Your task to perform on an android device: Open calendar and show me the third week of next month Image 0: 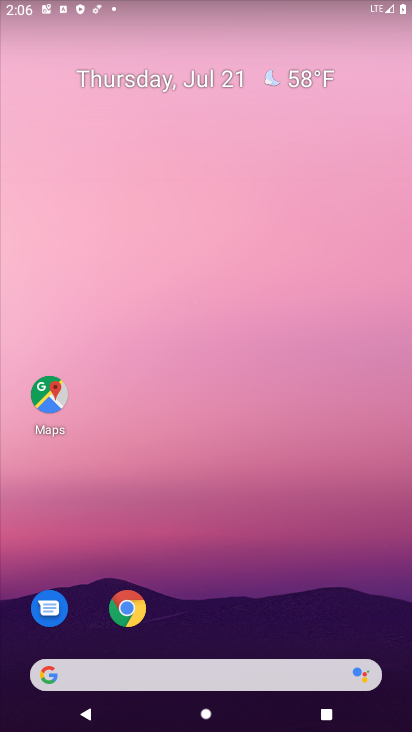
Step 0: drag from (393, 661) to (211, 26)
Your task to perform on an android device: Open calendar and show me the third week of next month Image 1: 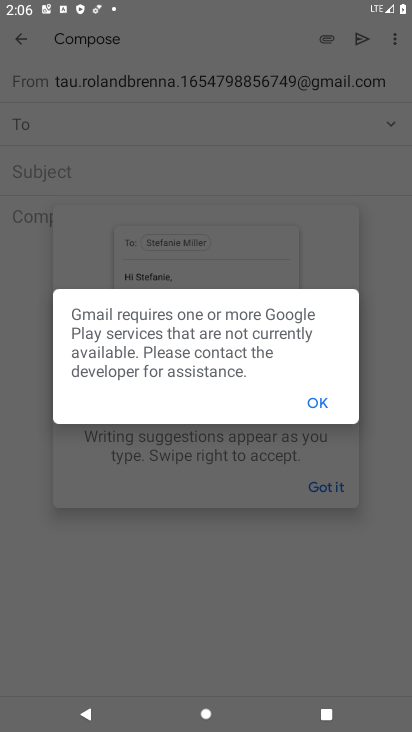
Step 1: press home button
Your task to perform on an android device: Open calendar and show me the third week of next month Image 2: 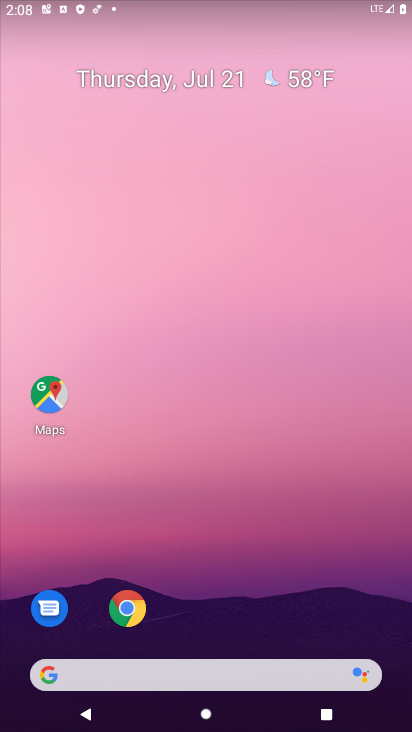
Step 2: drag from (298, 621) to (233, 69)
Your task to perform on an android device: Open calendar and show me the third week of next month Image 3: 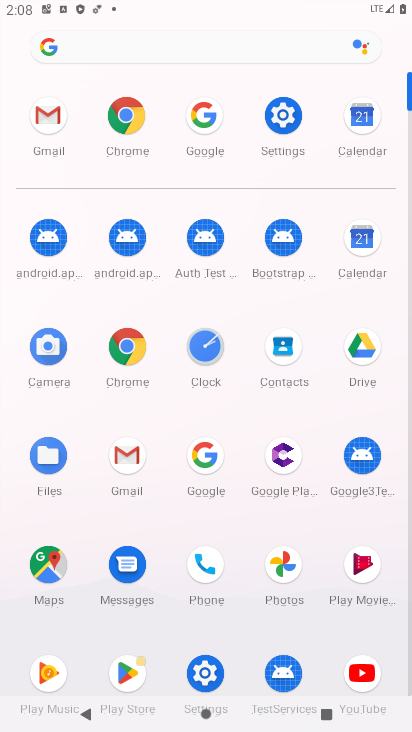
Step 3: click (373, 242)
Your task to perform on an android device: Open calendar and show me the third week of next month Image 4: 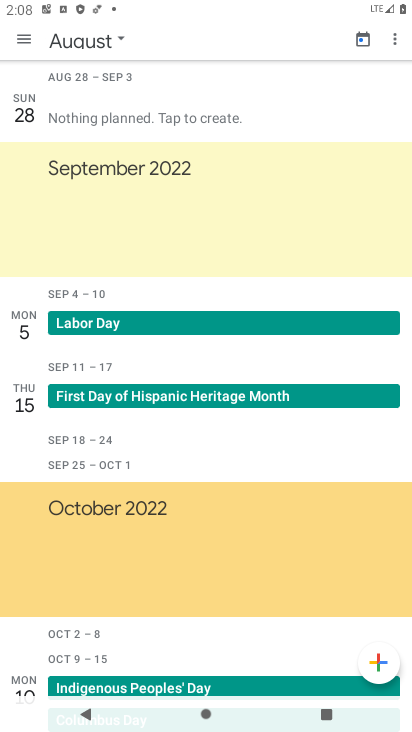
Step 4: click (77, 47)
Your task to perform on an android device: Open calendar and show me the third week of next month Image 5: 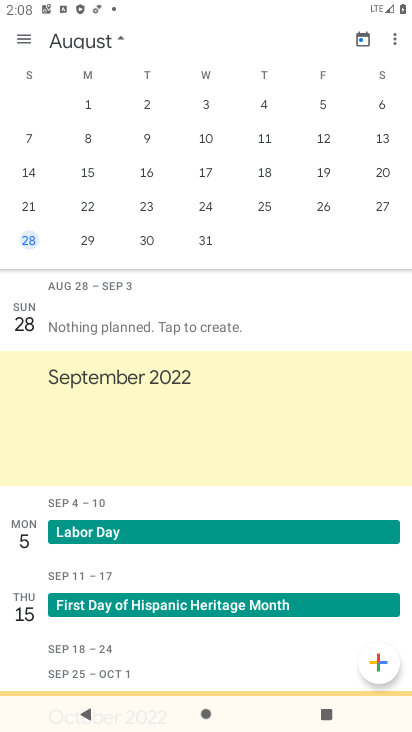
Step 5: drag from (374, 174) to (0, 129)
Your task to perform on an android device: Open calendar and show me the third week of next month Image 6: 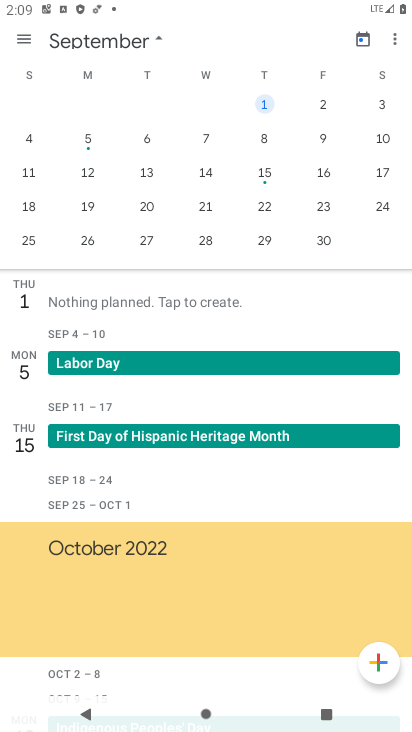
Step 6: click (20, 204)
Your task to perform on an android device: Open calendar and show me the third week of next month Image 7: 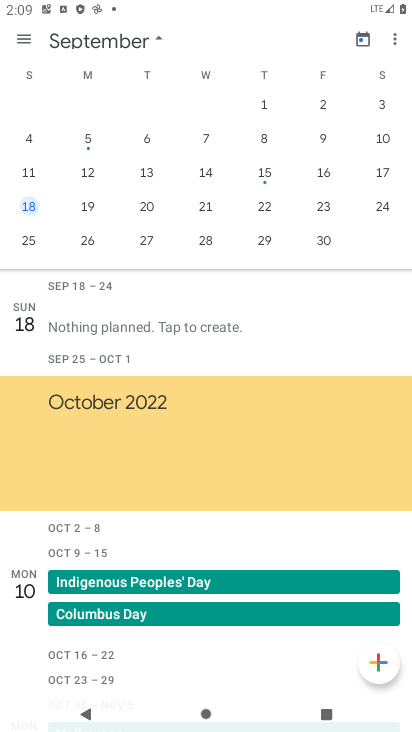
Step 7: task complete